Your task to perform on an android device: Open Youtube and go to the subscriptions tab Image 0: 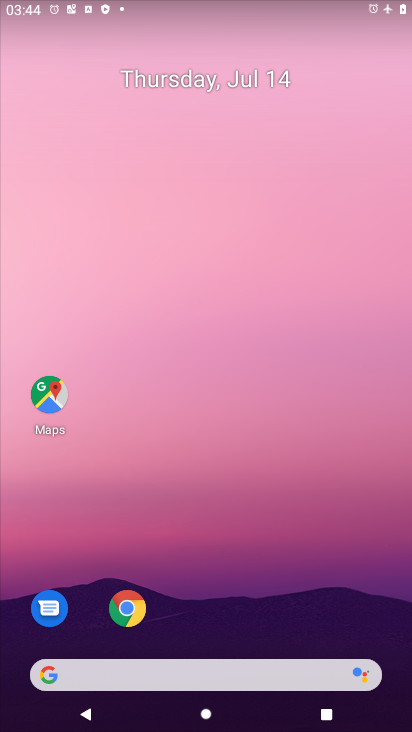
Step 0: drag from (388, 650) to (333, 150)
Your task to perform on an android device: Open Youtube and go to the subscriptions tab Image 1: 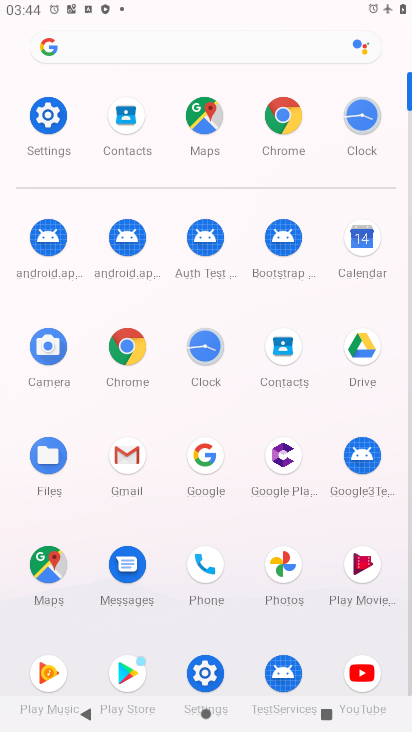
Step 1: click (364, 675)
Your task to perform on an android device: Open Youtube and go to the subscriptions tab Image 2: 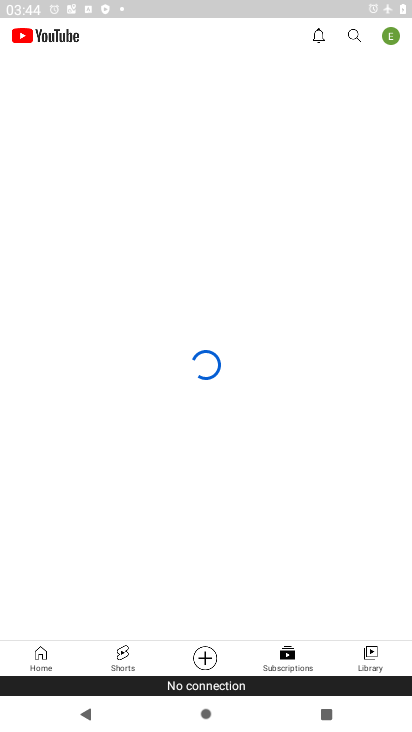
Step 2: task complete